Your task to perform on an android device: Open calendar and show me the first week of next month Image 0: 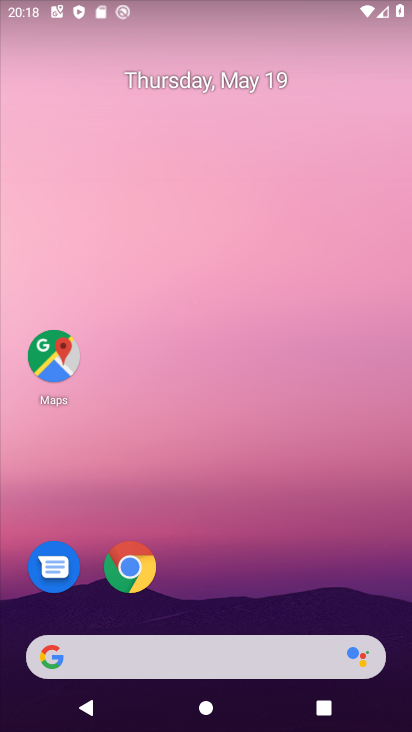
Step 0: drag from (209, 584) to (262, 119)
Your task to perform on an android device: Open calendar and show me the first week of next month Image 1: 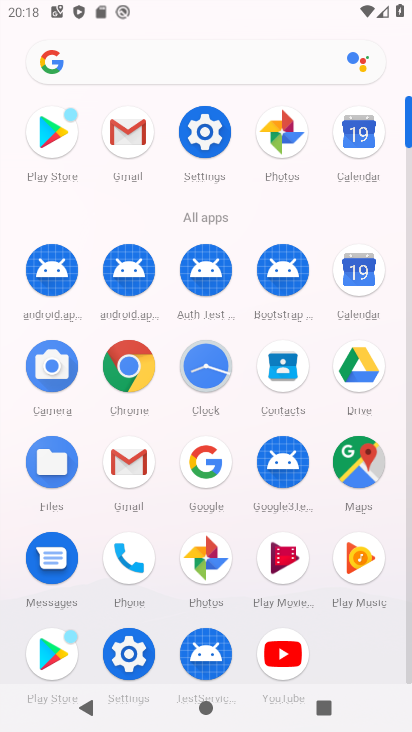
Step 1: click (363, 288)
Your task to perform on an android device: Open calendar and show me the first week of next month Image 2: 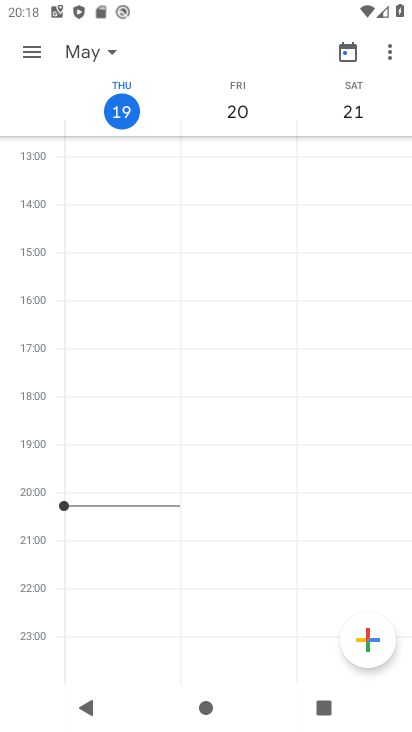
Step 2: click (38, 55)
Your task to perform on an android device: Open calendar and show me the first week of next month Image 3: 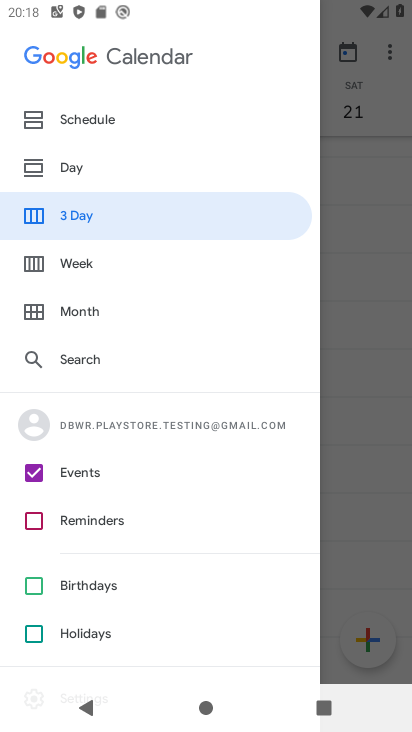
Step 3: click (103, 267)
Your task to perform on an android device: Open calendar and show me the first week of next month Image 4: 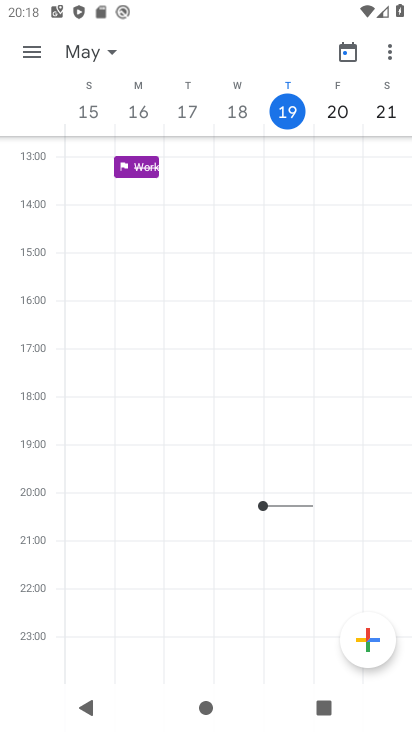
Step 4: task complete